Your task to perform on an android device: turn on improve location accuracy Image 0: 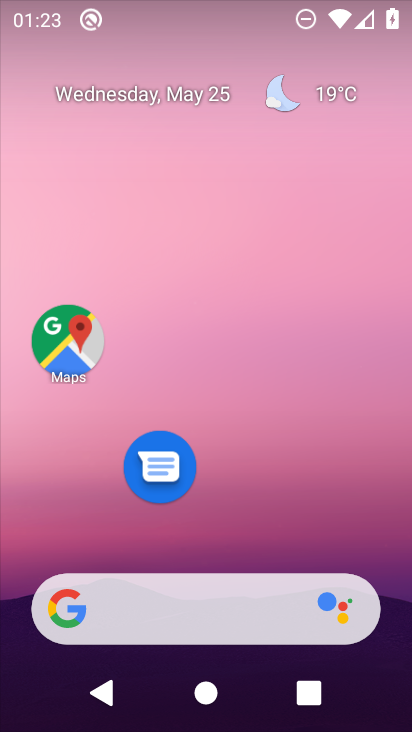
Step 0: drag from (199, 532) to (281, 149)
Your task to perform on an android device: turn on improve location accuracy Image 1: 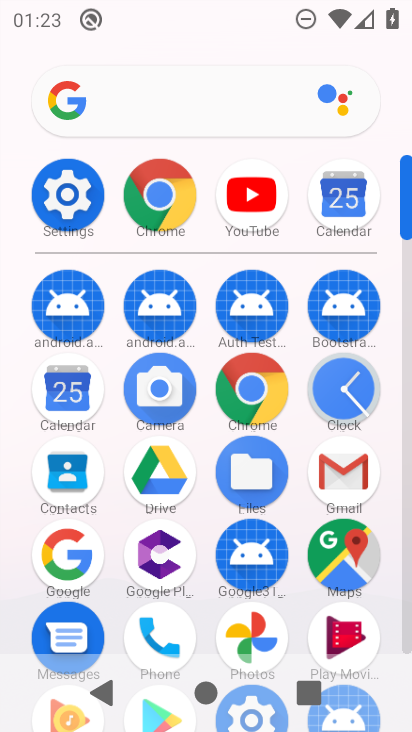
Step 1: click (72, 190)
Your task to perform on an android device: turn on improve location accuracy Image 2: 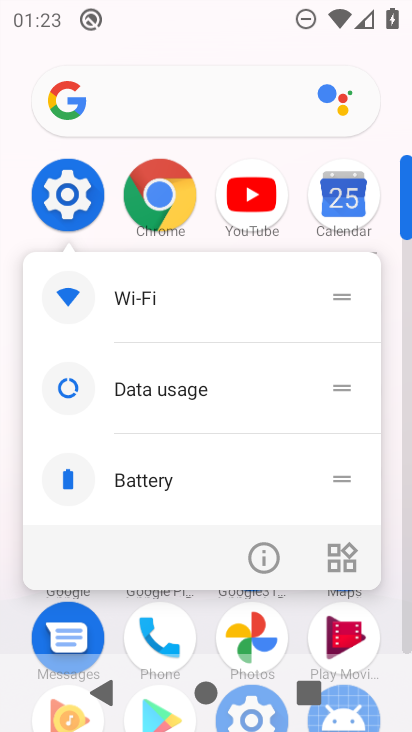
Step 2: click (263, 553)
Your task to perform on an android device: turn on improve location accuracy Image 3: 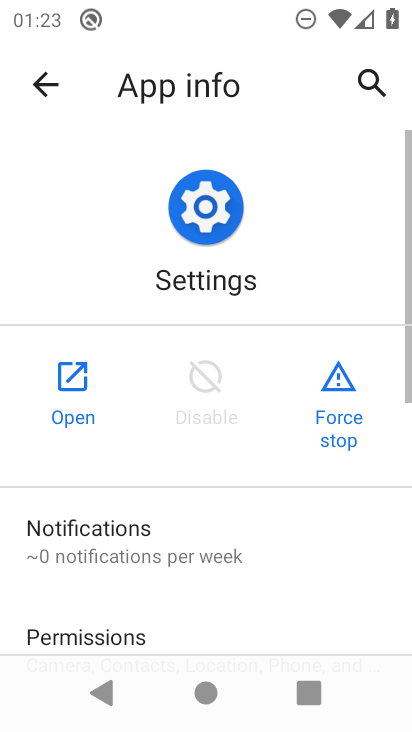
Step 3: click (53, 408)
Your task to perform on an android device: turn on improve location accuracy Image 4: 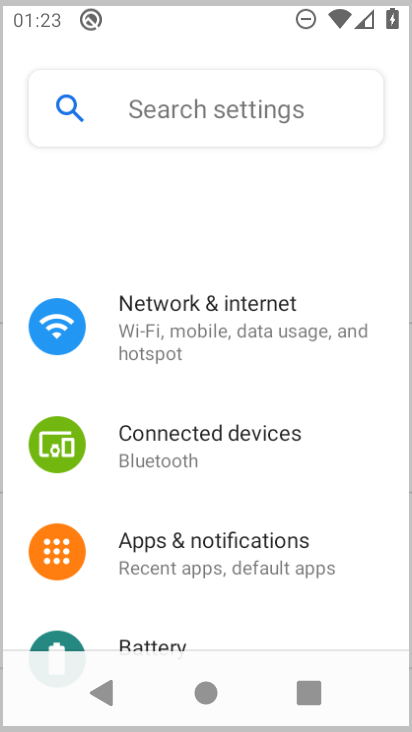
Step 4: drag from (152, 588) to (283, 40)
Your task to perform on an android device: turn on improve location accuracy Image 5: 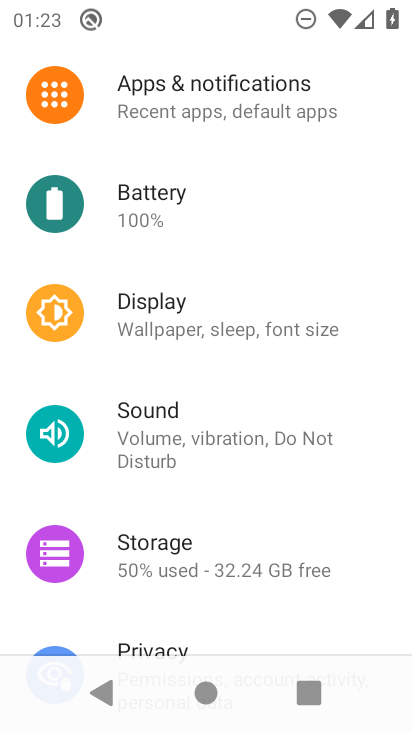
Step 5: drag from (245, 469) to (403, 52)
Your task to perform on an android device: turn on improve location accuracy Image 6: 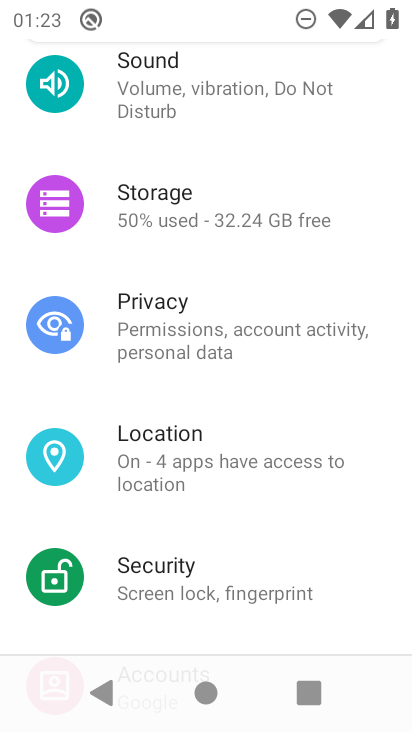
Step 6: drag from (177, 562) to (294, 224)
Your task to perform on an android device: turn on improve location accuracy Image 7: 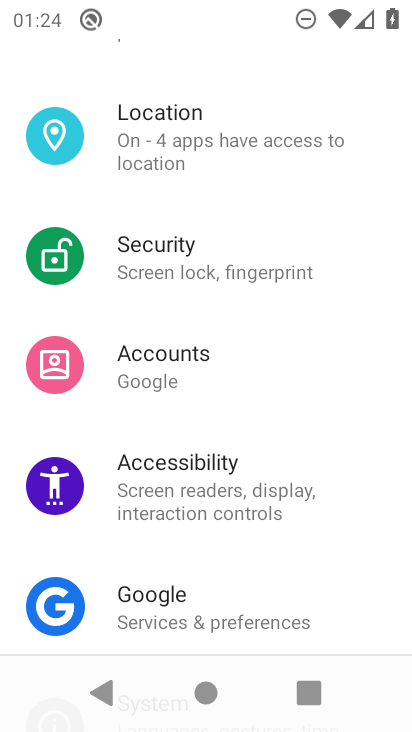
Step 7: click (195, 153)
Your task to perform on an android device: turn on improve location accuracy Image 8: 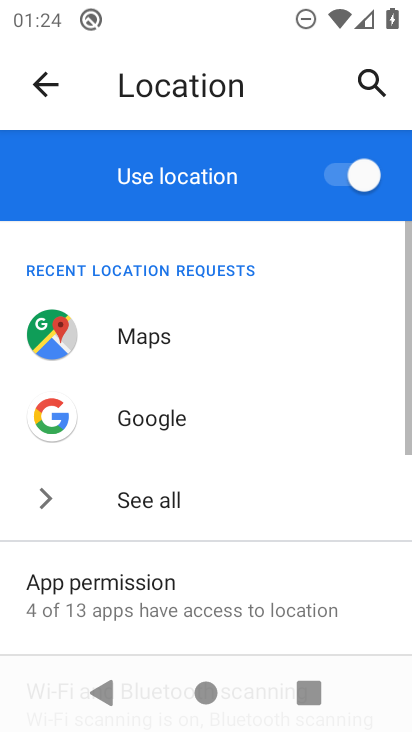
Step 8: drag from (232, 498) to (354, 14)
Your task to perform on an android device: turn on improve location accuracy Image 9: 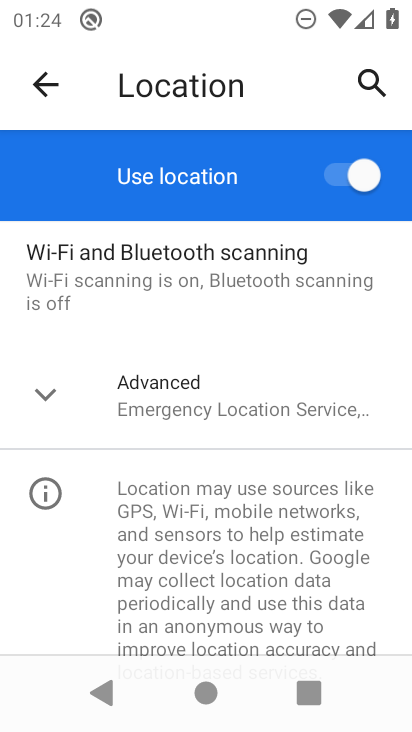
Step 9: click (94, 406)
Your task to perform on an android device: turn on improve location accuracy Image 10: 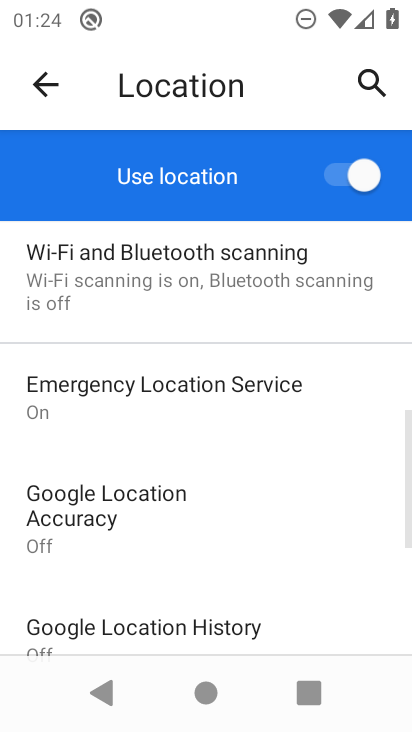
Step 10: drag from (231, 611) to (389, 85)
Your task to perform on an android device: turn on improve location accuracy Image 11: 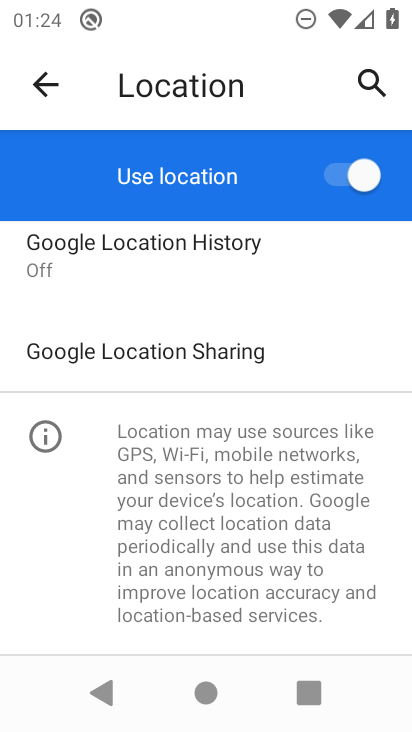
Step 11: drag from (247, 297) to (297, 626)
Your task to perform on an android device: turn on improve location accuracy Image 12: 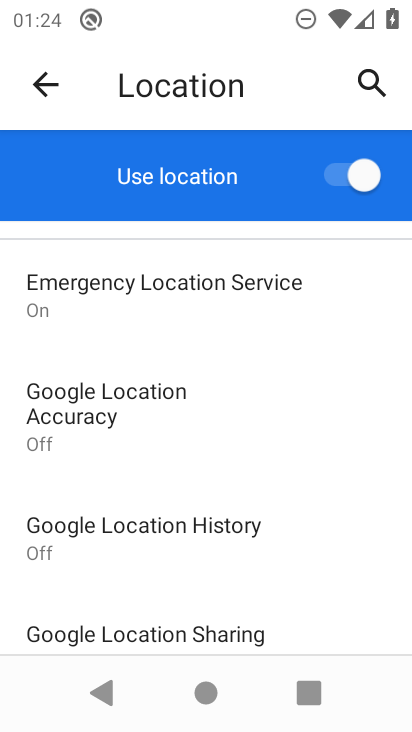
Step 12: click (121, 406)
Your task to perform on an android device: turn on improve location accuracy Image 13: 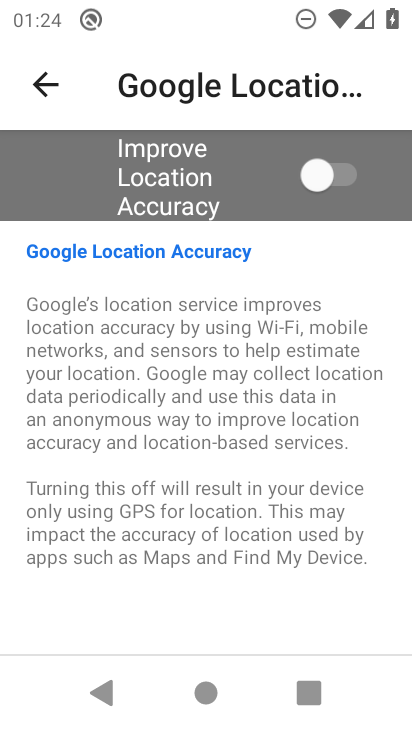
Step 13: click (336, 164)
Your task to perform on an android device: turn on improve location accuracy Image 14: 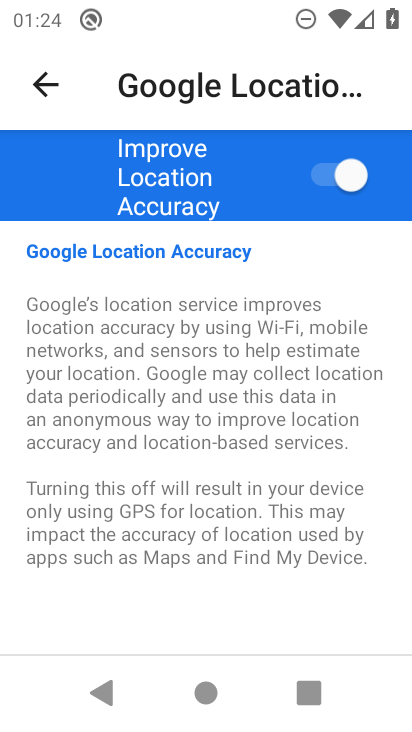
Step 14: task complete